Your task to perform on an android device: Show the shopping cart on costco. Search for logitech g903 on costco, select the first entry, add it to the cart, then select checkout. Image 0: 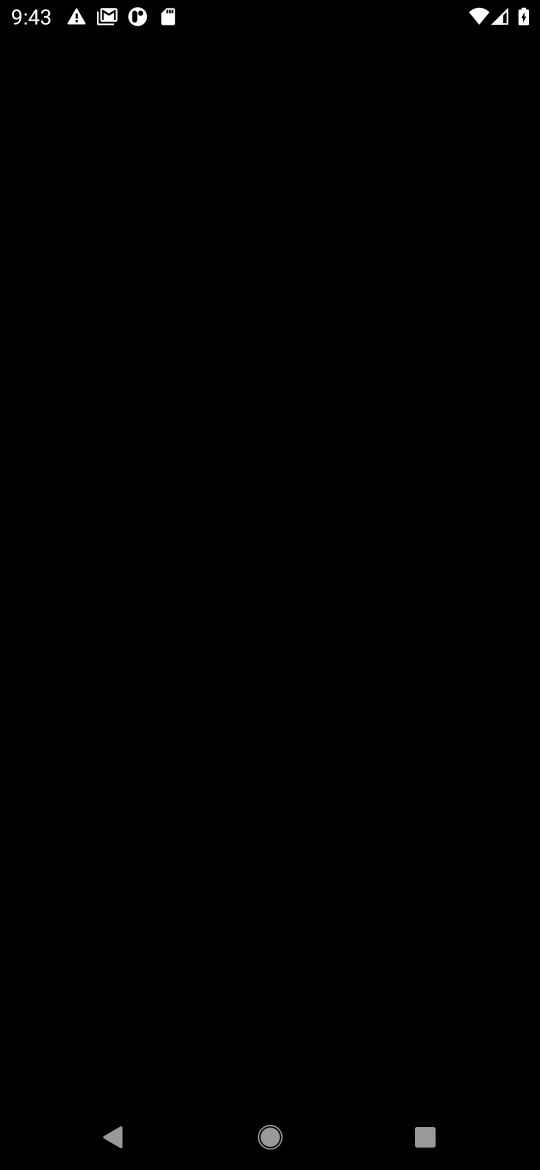
Step 0: press home button
Your task to perform on an android device: Show the shopping cart on costco. Search for logitech g903 on costco, select the first entry, add it to the cart, then select checkout. Image 1: 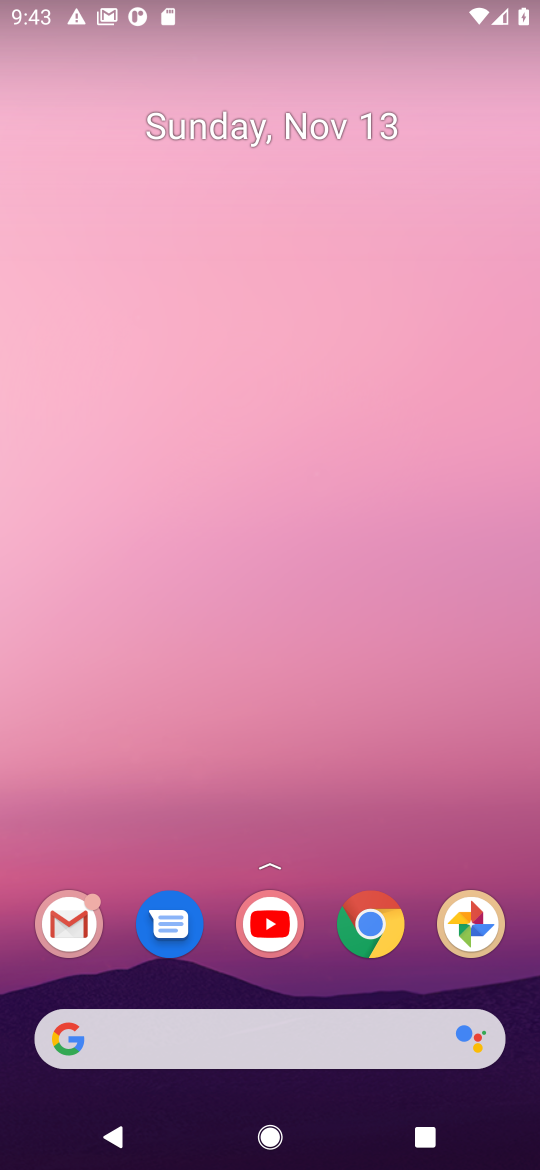
Step 1: click (371, 920)
Your task to perform on an android device: Show the shopping cart on costco. Search for logitech g903 on costco, select the first entry, add it to the cart, then select checkout. Image 2: 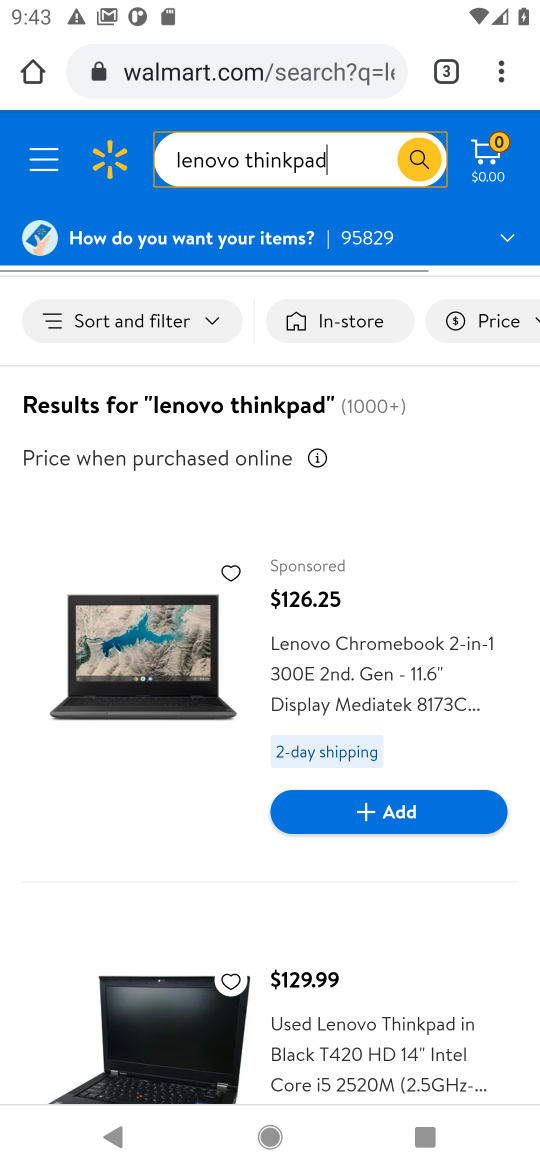
Step 2: click (172, 61)
Your task to perform on an android device: Show the shopping cart on costco. Search for logitech g903 on costco, select the first entry, add it to the cart, then select checkout. Image 3: 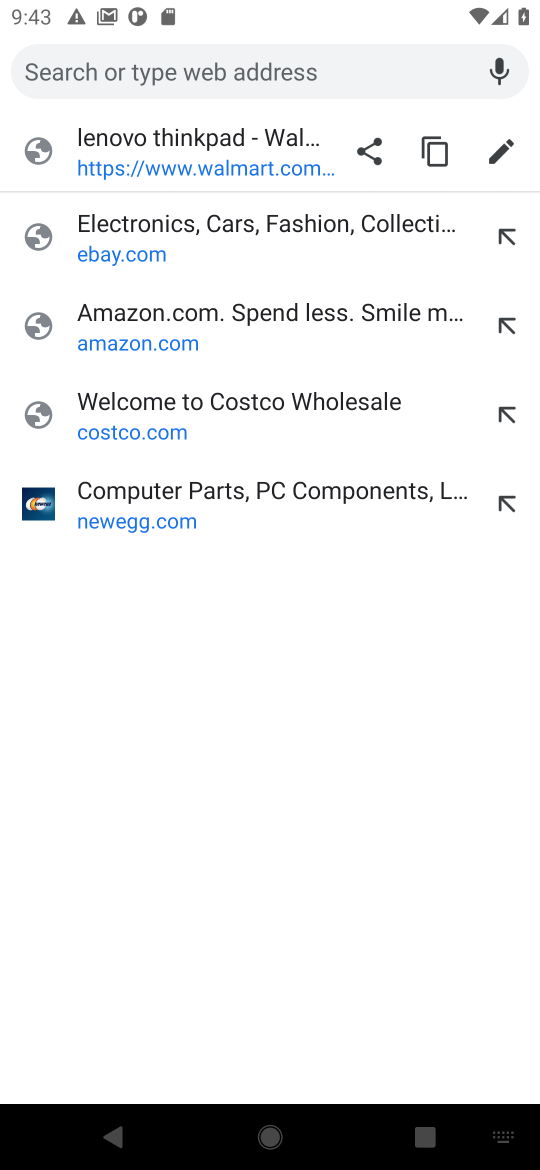
Step 3: click (132, 421)
Your task to perform on an android device: Show the shopping cart on costco. Search for logitech g903 on costco, select the first entry, add it to the cart, then select checkout. Image 4: 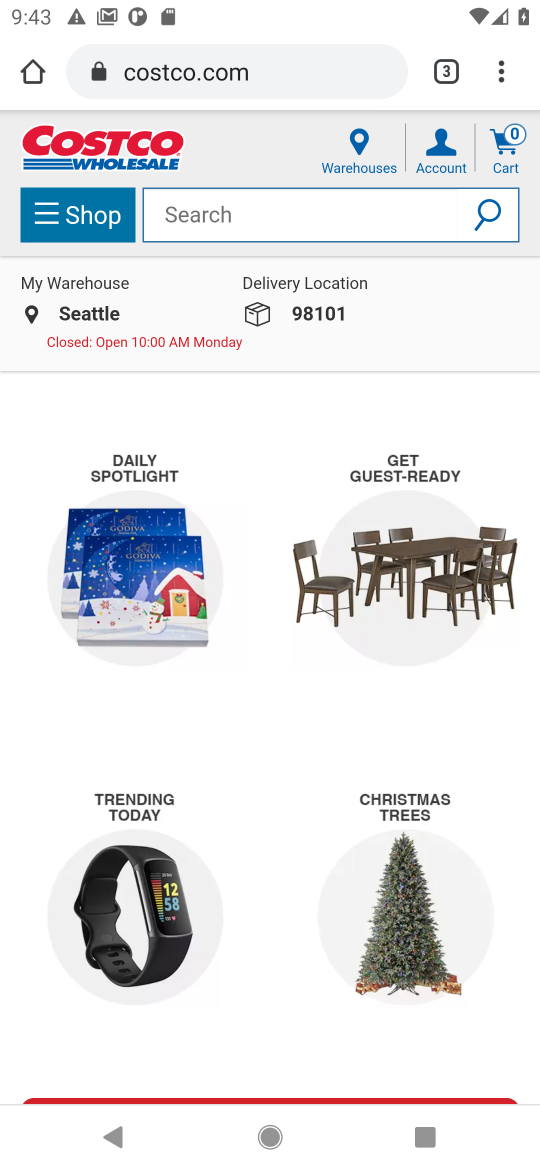
Step 4: click (498, 139)
Your task to perform on an android device: Show the shopping cart on costco. Search for logitech g903 on costco, select the first entry, add it to the cart, then select checkout. Image 5: 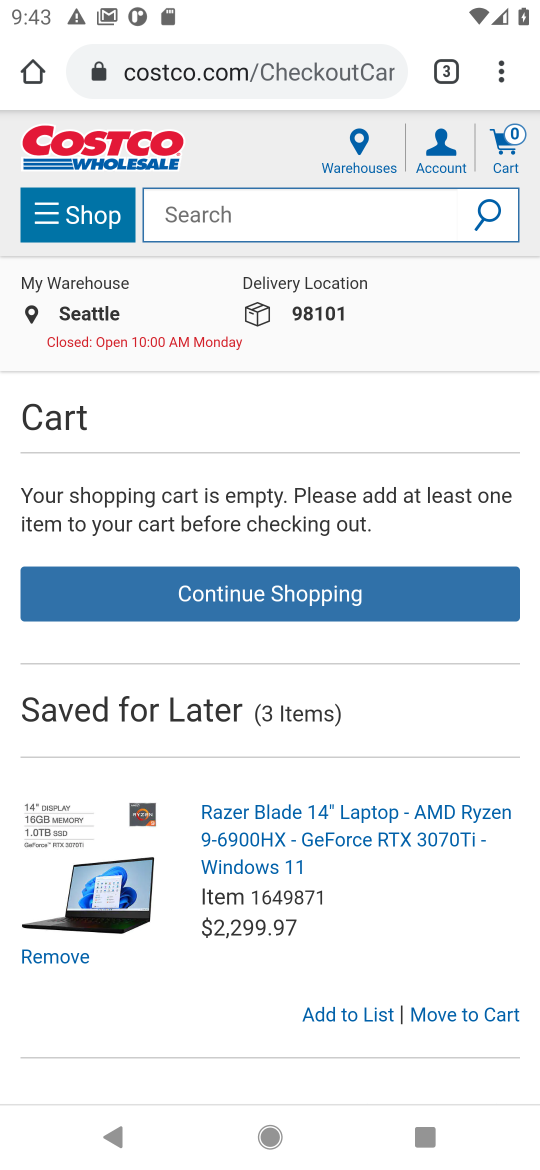
Step 5: click (277, 221)
Your task to perform on an android device: Show the shopping cart on costco. Search for logitech g903 on costco, select the first entry, add it to the cart, then select checkout. Image 6: 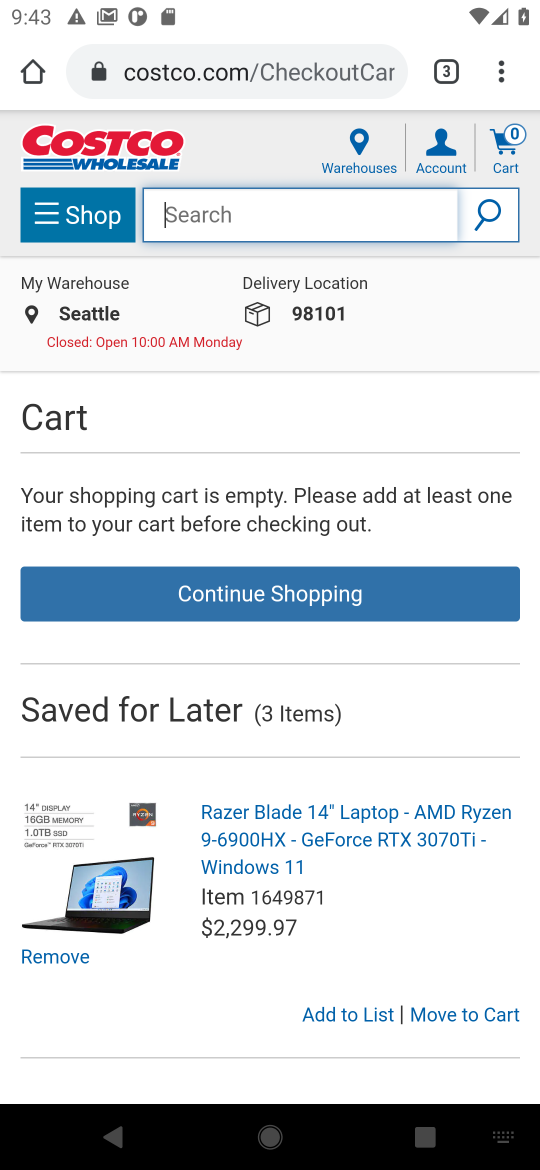
Step 6: type "logitech g903"
Your task to perform on an android device: Show the shopping cart on costco. Search for logitech g903 on costco, select the first entry, add it to the cart, then select checkout. Image 7: 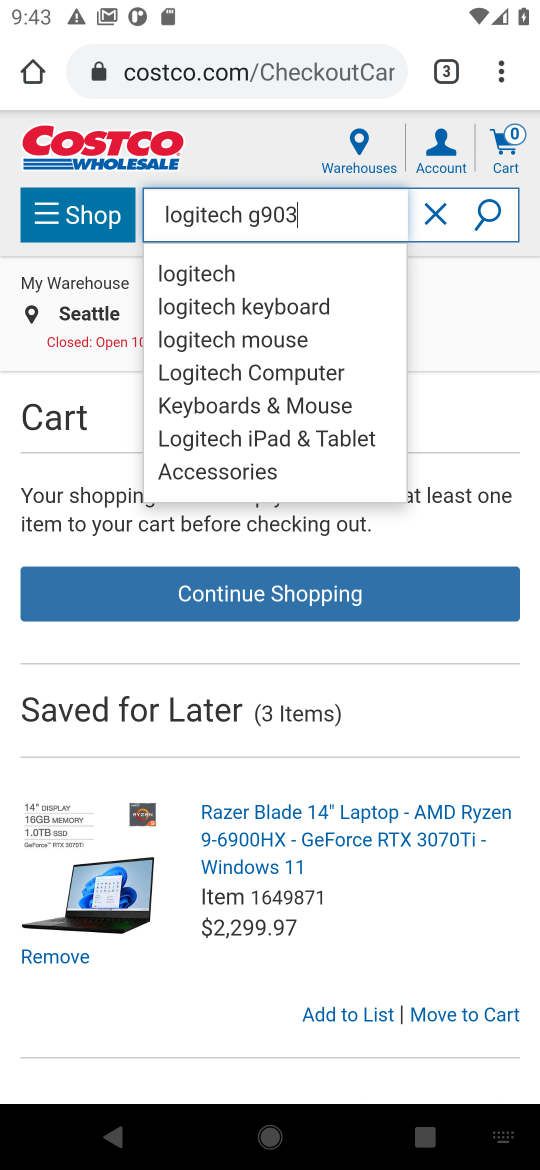
Step 7: click (473, 213)
Your task to perform on an android device: Show the shopping cart on costco. Search for logitech g903 on costco, select the first entry, add it to the cart, then select checkout. Image 8: 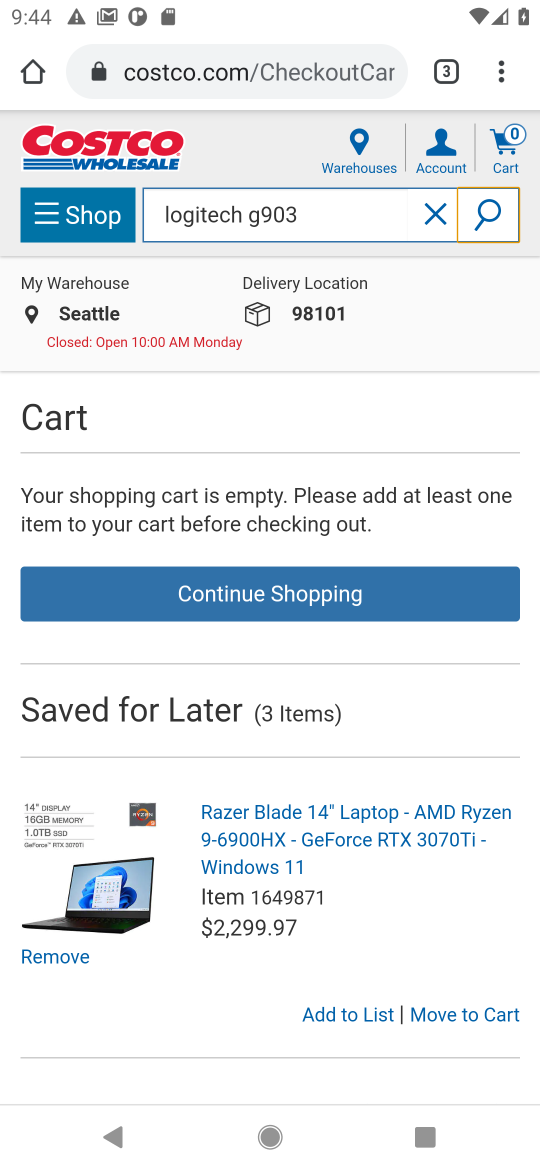
Step 8: click (491, 212)
Your task to perform on an android device: Show the shopping cart on costco. Search for logitech g903 on costco, select the first entry, add it to the cart, then select checkout. Image 9: 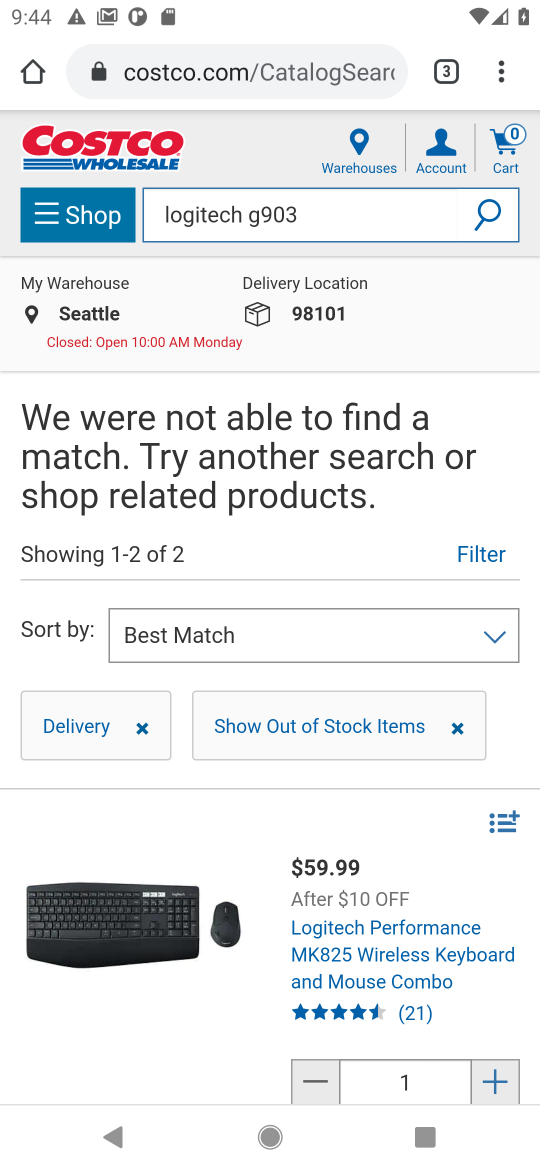
Step 9: task complete